Your task to perform on an android device: turn off improve location accuracy Image 0: 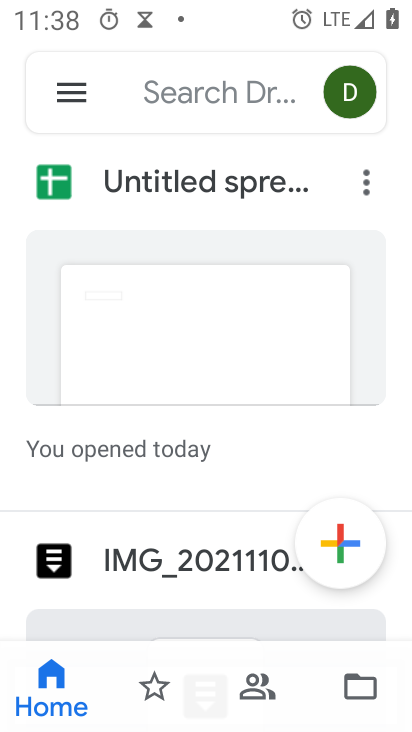
Step 0: press home button
Your task to perform on an android device: turn off improve location accuracy Image 1: 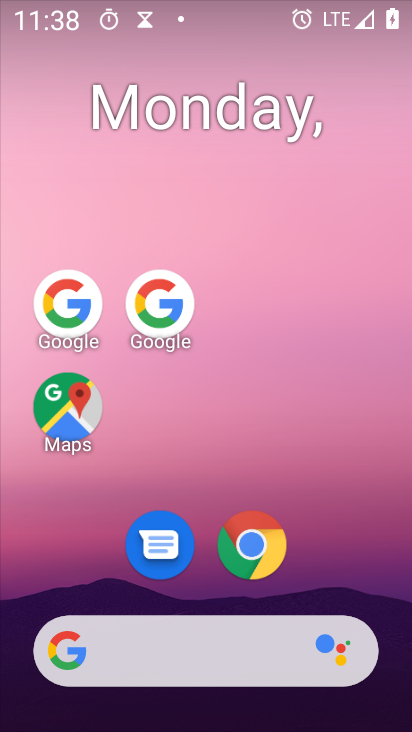
Step 1: drag from (166, 443) to (221, 197)
Your task to perform on an android device: turn off improve location accuracy Image 2: 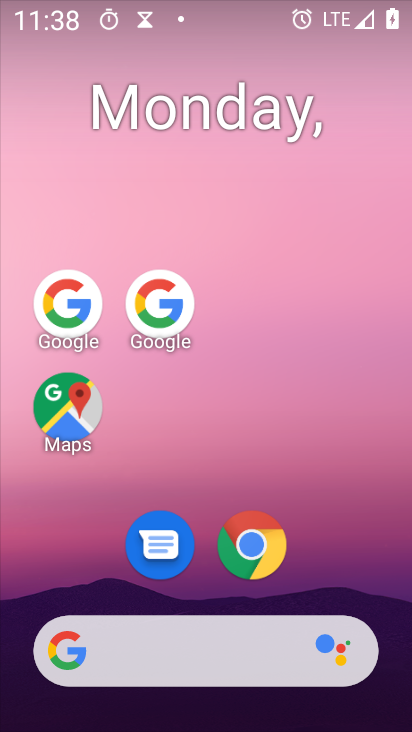
Step 2: drag from (182, 666) to (264, 177)
Your task to perform on an android device: turn off improve location accuracy Image 3: 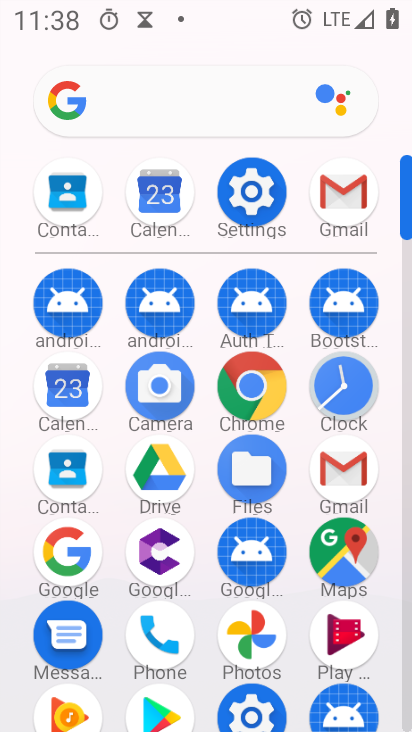
Step 3: click (246, 188)
Your task to perform on an android device: turn off improve location accuracy Image 4: 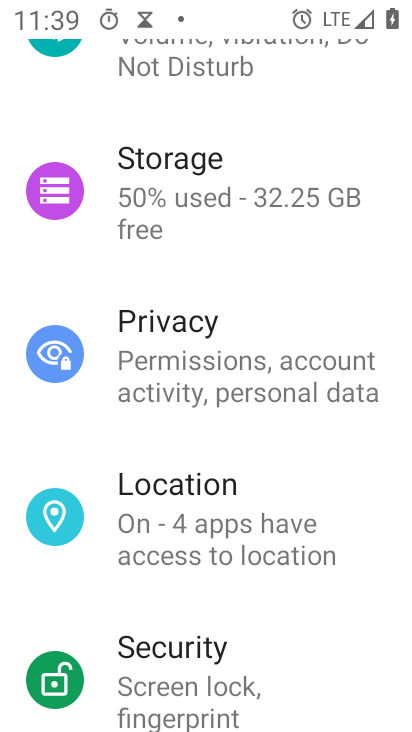
Step 4: click (219, 533)
Your task to perform on an android device: turn off improve location accuracy Image 5: 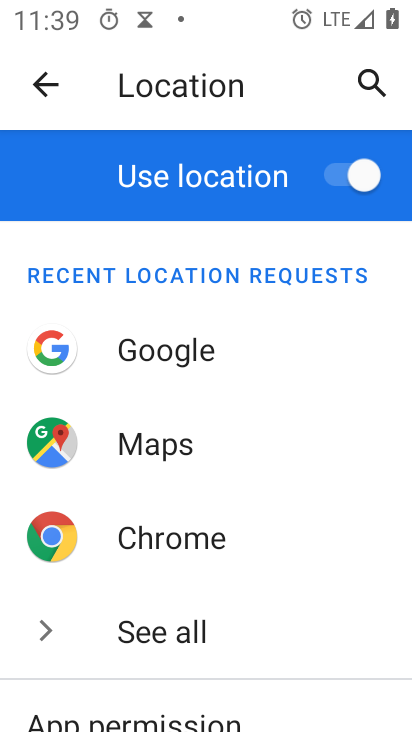
Step 5: drag from (226, 585) to (350, 144)
Your task to perform on an android device: turn off improve location accuracy Image 6: 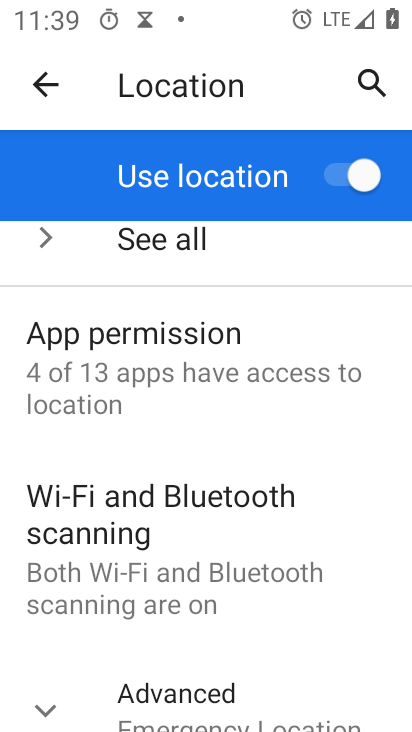
Step 6: drag from (204, 623) to (290, 287)
Your task to perform on an android device: turn off improve location accuracy Image 7: 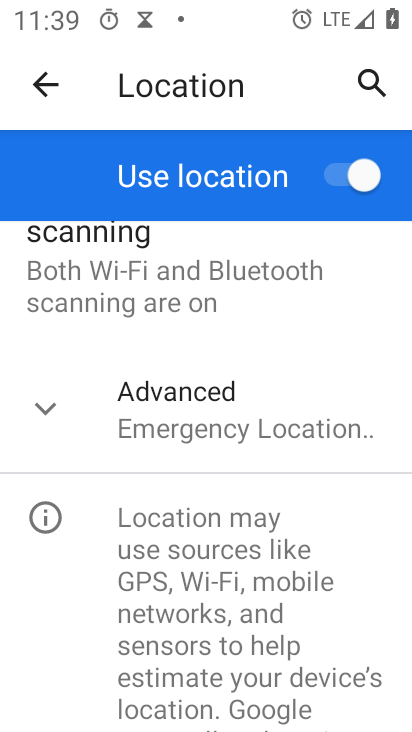
Step 7: click (202, 431)
Your task to perform on an android device: turn off improve location accuracy Image 8: 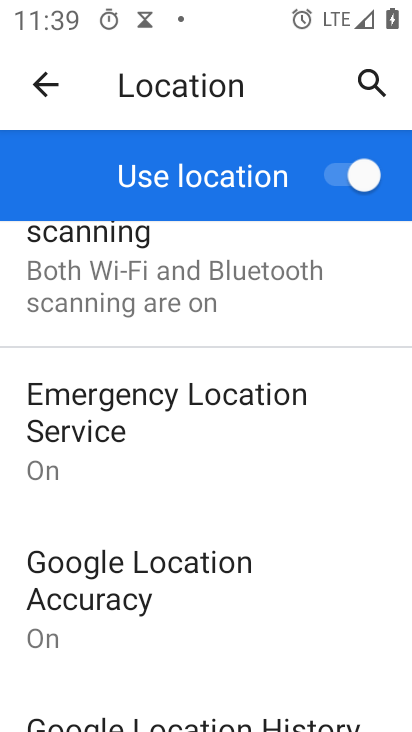
Step 8: click (172, 585)
Your task to perform on an android device: turn off improve location accuracy Image 9: 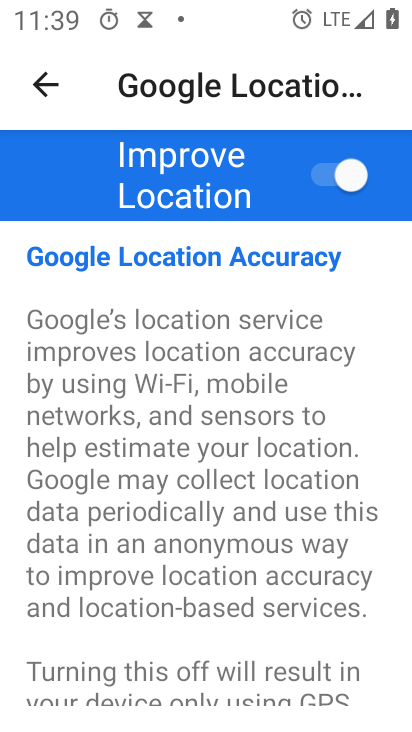
Step 9: click (323, 178)
Your task to perform on an android device: turn off improve location accuracy Image 10: 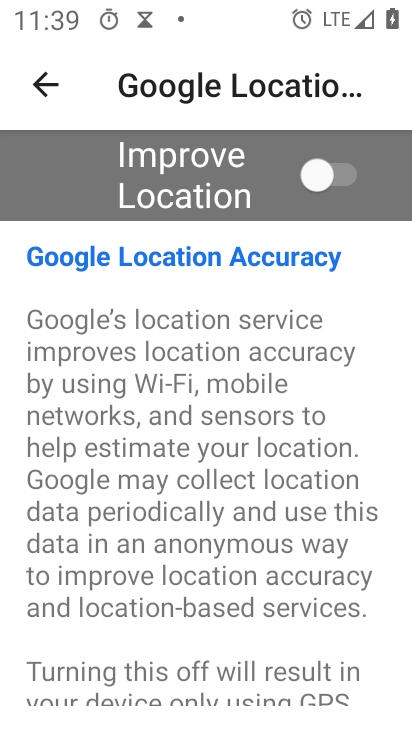
Step 10: task complete